Your task to perform on an android device: toggle airplane mode Image 0: 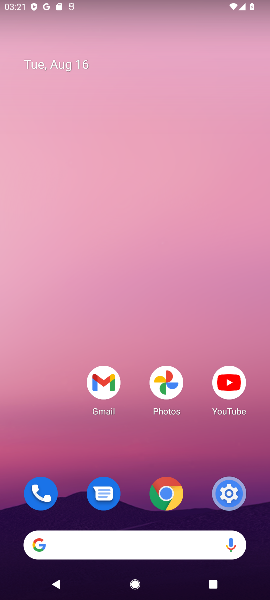
Step 0: press home button
Your task to perform on an android device: toggle airplane mode Image 1: 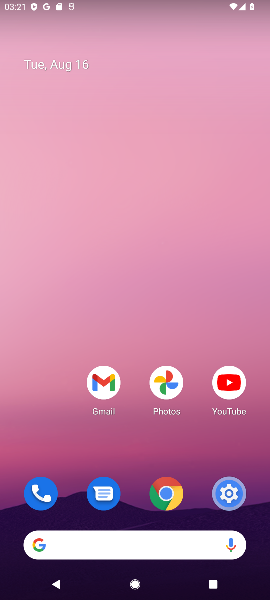
Step 1: drag from (61, 459) to (62, 150)
Your task to perform on an android device: toggle airplane mode Image 2: 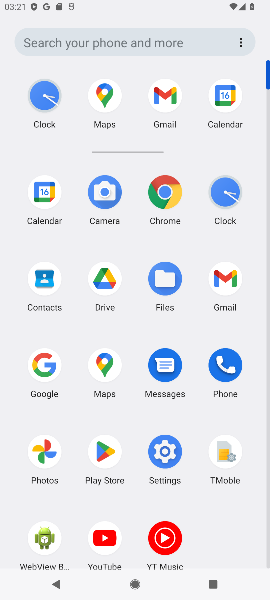
Step 2: click (162, 457)
Your task to perform on an android device: toggle airplane mode Image 3: 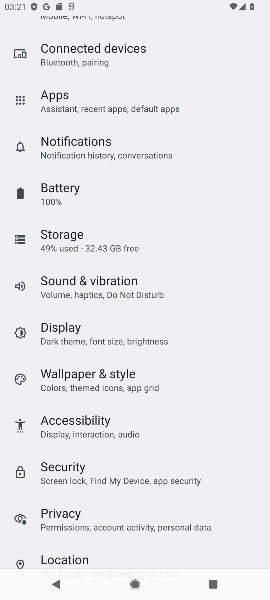
Step 3: drag from (227, 195) to (233, 277)
Your task to perform on an android device: toggle airplane mode Image 4: 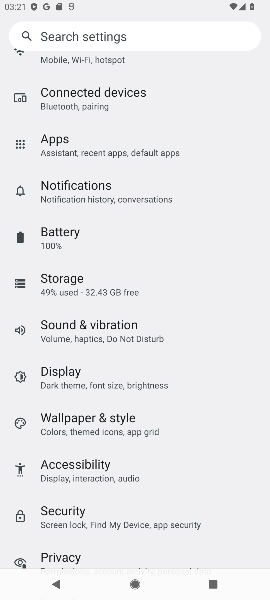
Step 4: drag from (234, 209) to (241, 274)
Your task to perform on an android device: toggle airplane mode Image 5: 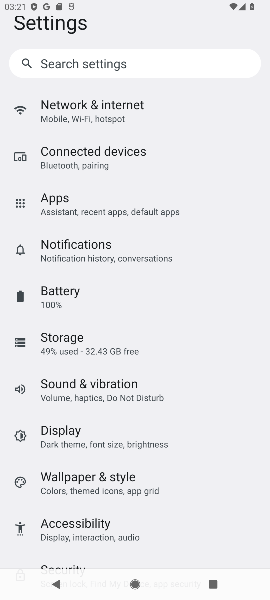
Step 5: drag from (226, 158) to (239, 277)
Your task to perform on an android device: toggle airplane mode Image 6: 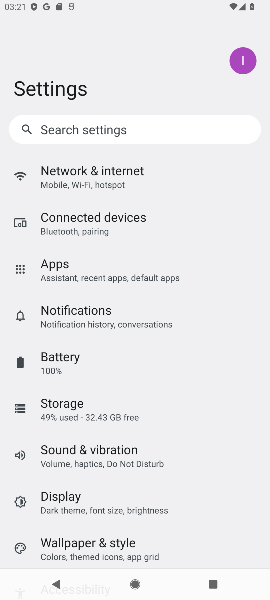
Step 6: click (169, 177)
Your task to perform on an android device: toggle airplane mode Image 7: 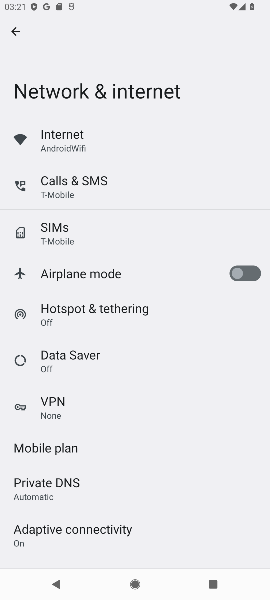
Step 7: click (238, 272)
Your task to perform on an android device: toggle airplane mode Image 8: 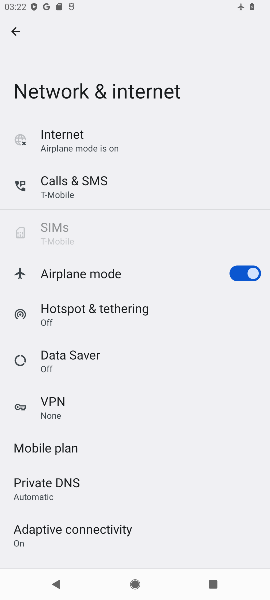
Step 8: task complete